Your task to perform on an android device: turn notification dots on Image 0: 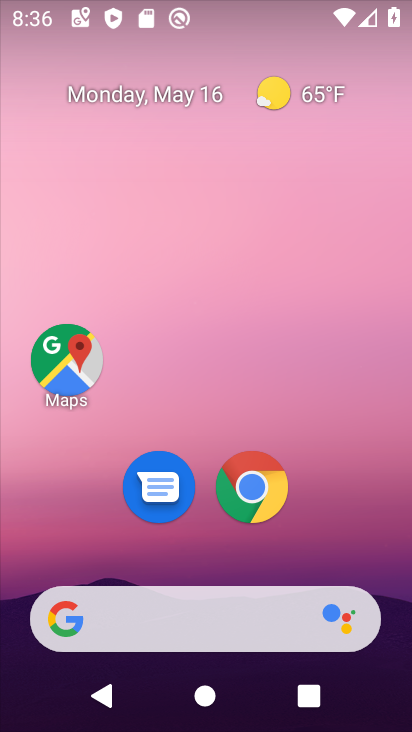
Step 0: drag from (356, 503) to (366, 176)
Your task to perform on an android device: turn notification dots on Image 1: 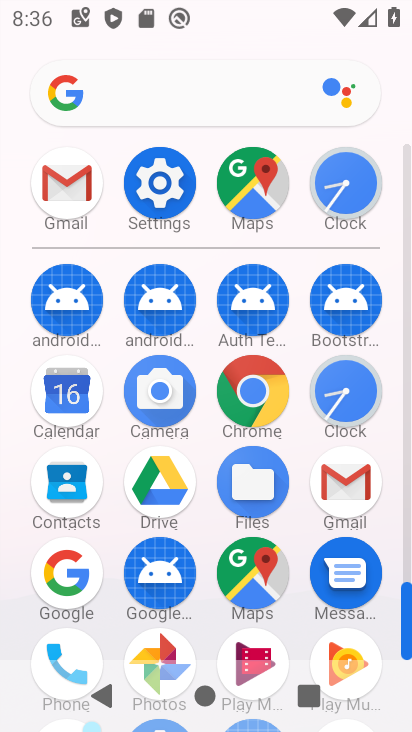
Step 1: click (188, 200)
Your task to perform on an android device: turn notification dots on Image 2: 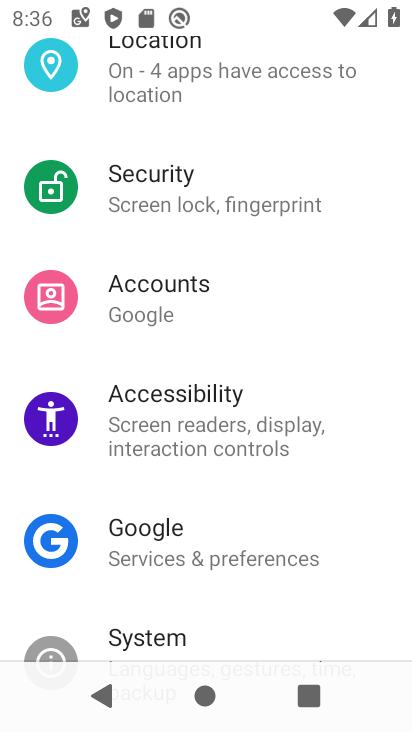
Step 2: drag from (344, 265) to (347, 496)
Your task to perform on an android device: turn notification dots on Image 3: 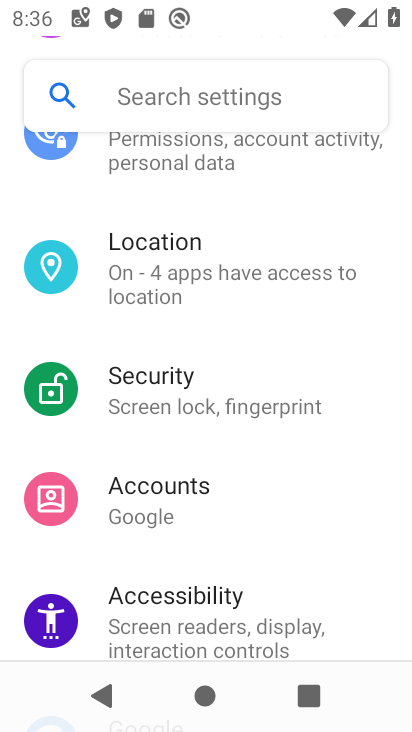
Step 3: drag from (375, 208) to (362, 422)
Your task to perform on an android device: turn notification dots on Image 4: 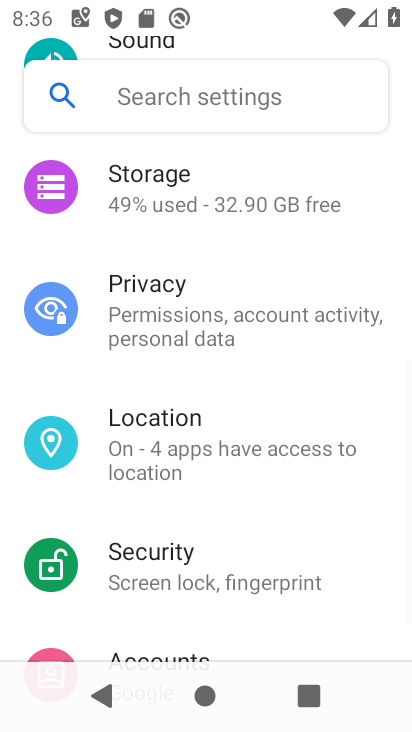
Step 4: drag from (359, 232) to (371, 390)
Your task to perform on an android device: turn notification dots on Image 5: 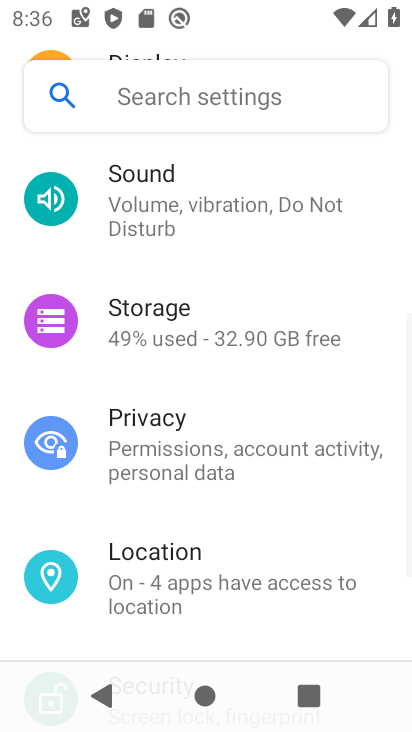
Step 5: drag from (368, 192) to (367, 392)
Your task to perform on an android device: turn notification dots on Image 6: 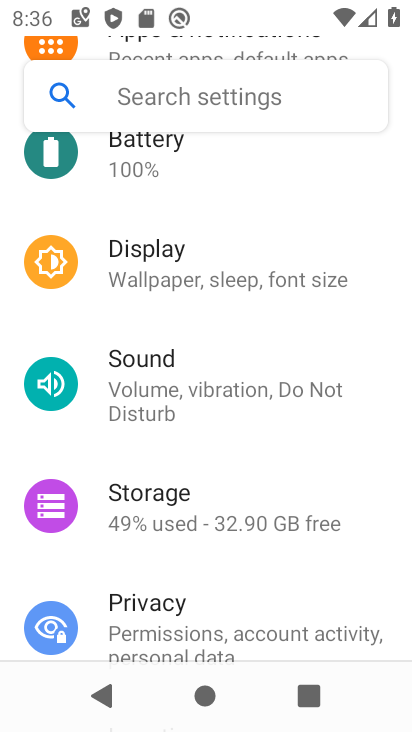
Step 6: drag from (359, 202) to (363, 407)
Your task to perform on an android device: turn notification dots on Image 7: 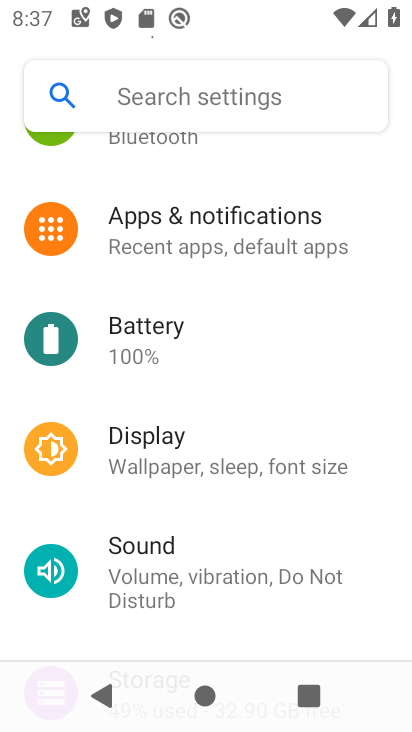
Step 7: drag from (364, 423) to (362, 307)
Your task to perform on an android device: turn notification dots on Image 8: 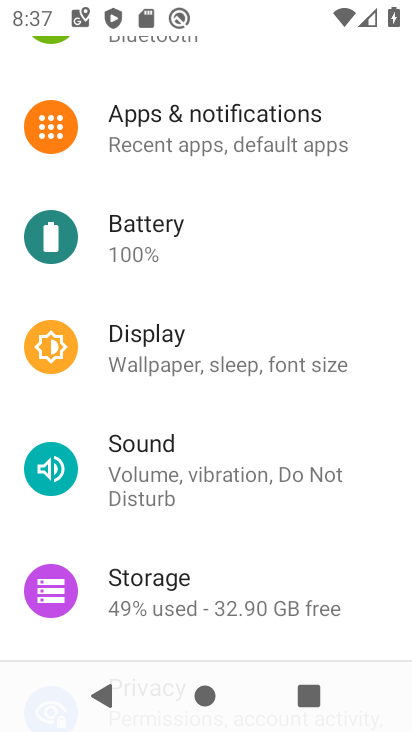
Step 8: drag from (336, 526) to (370, 328)
Your task to perform on an android device: turn notification dots on Image 9: 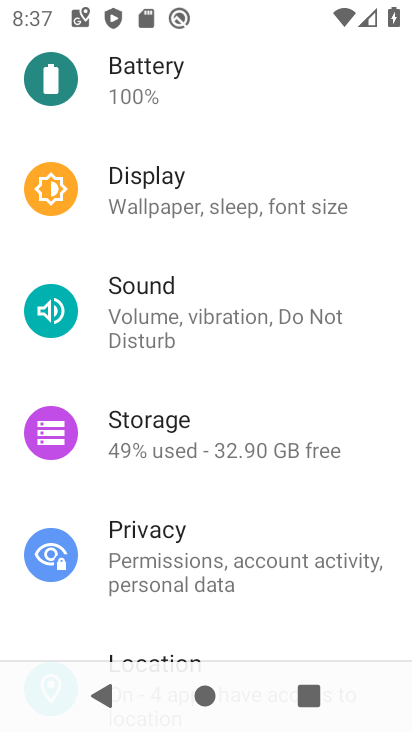
Step 9: drag from (350, 489) to (372, 327)
Your task to perform on an android device: turn notification dots on Image 10: 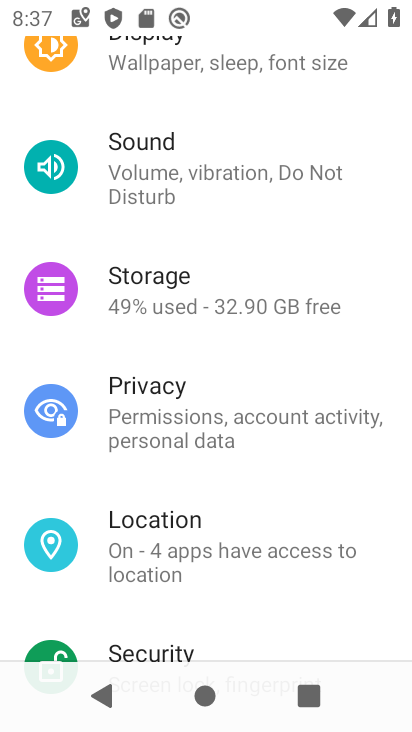
Step 10: drag from (308, 590) to (330, 350)
Your task to perform on an android device: turn notification dots on Image 11: 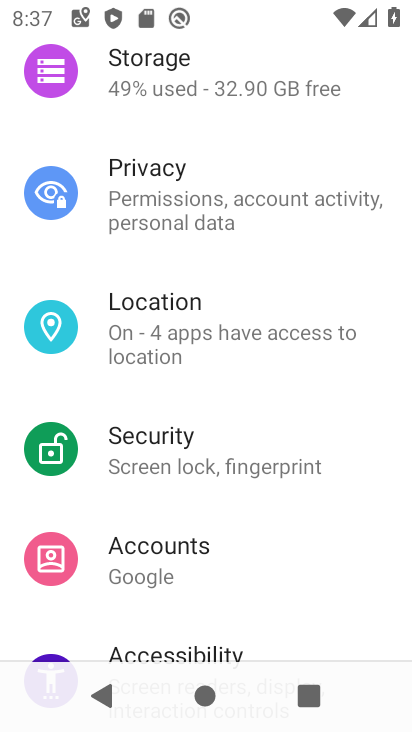
Step 11: drag from (306, 579) to (324, 420)
Your task to perform on an android device: turn notification dots on Image 12: 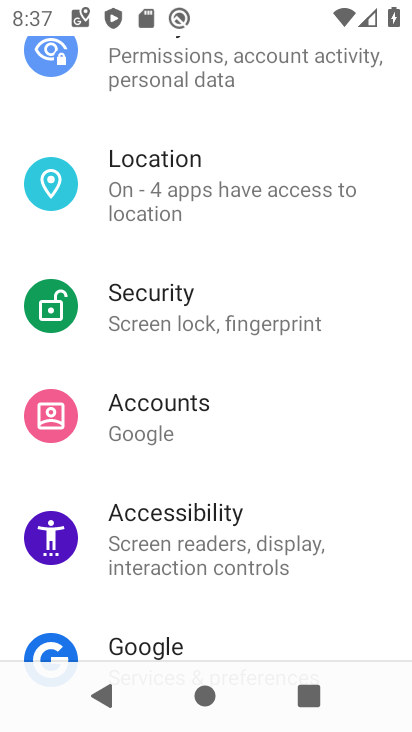
Step 12: drag from (315, 551) to (331, 453)
Your task to perform on an android device: turn notification dots on Image 13: 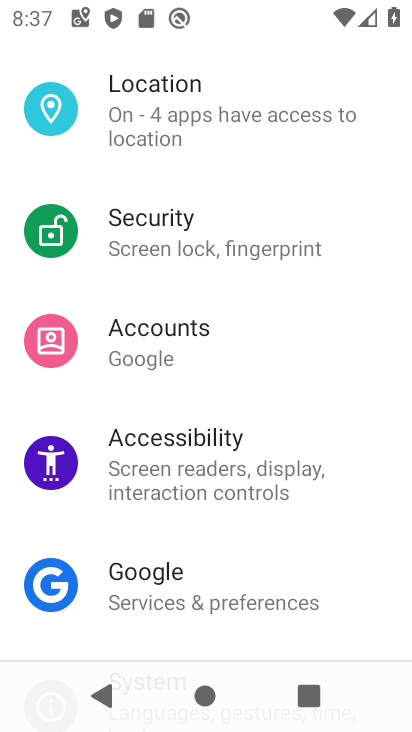
Step 13: drag from (322, 555) to (328, 371)
Your task to perform on an android device: turn notification dots on Image 14: 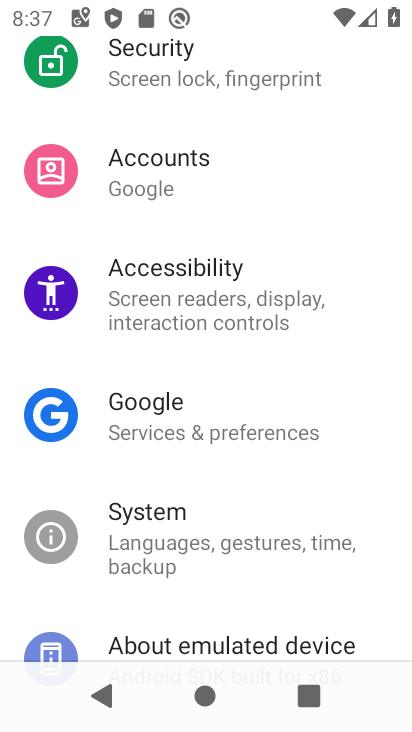
Step 14: drag from (308, 585) to (317, 414)
Your task to perform on an android device: turn notification dots on Image 15: 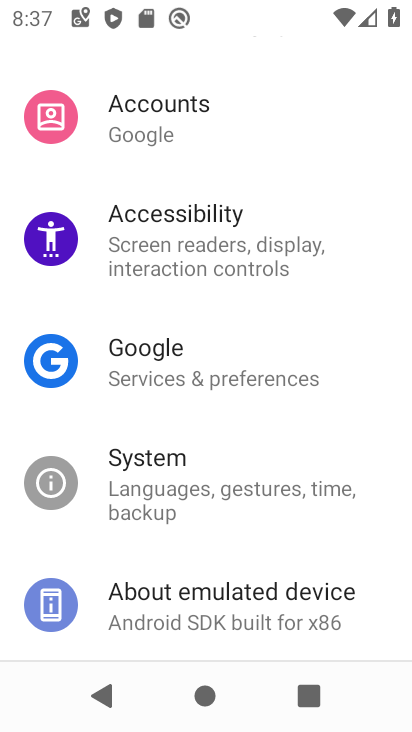
Step 15: drag from (355, 254) to (365, 465)
Your task to perform on an android device: turn notification dots on Image 16: 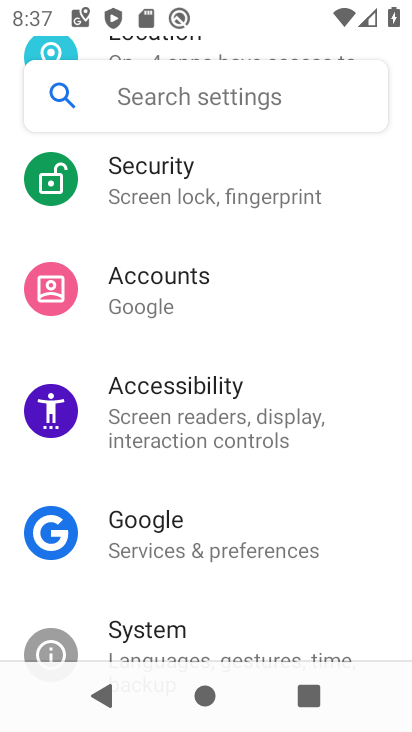
Step 16: drag from (365, 254) to (368, 467)
Your task to perform on an android device: turn notification dots on Image 17: 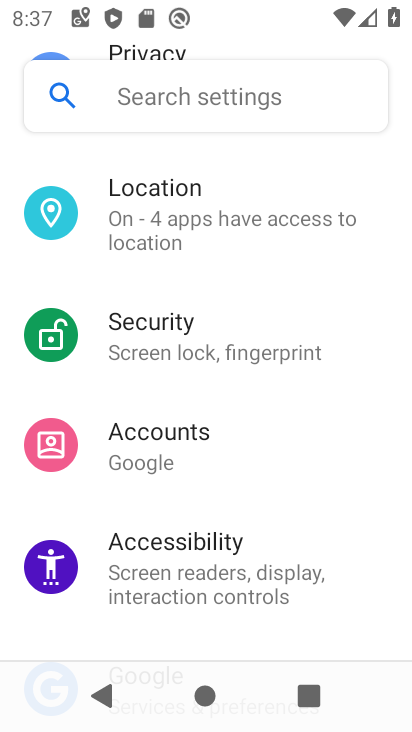
Step 17: drag from (354, 263) to (342, 469)
Your task to perform on an android device: turn notification dots on Image 18: 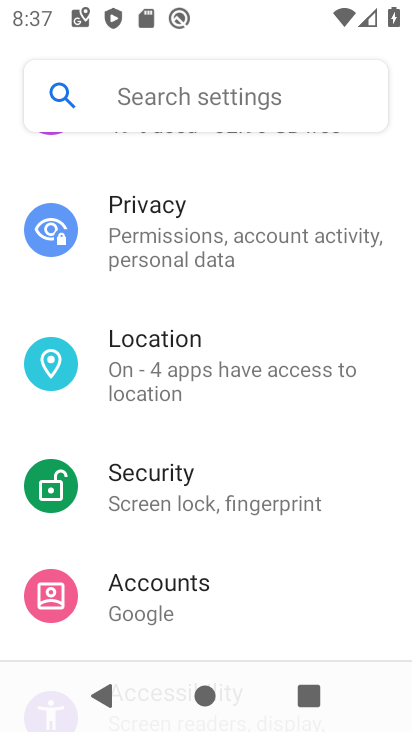
Step 18: drag from (344, 277) to (348, 459)
Your task to perform on an android device: turn notification dots on Image 19: 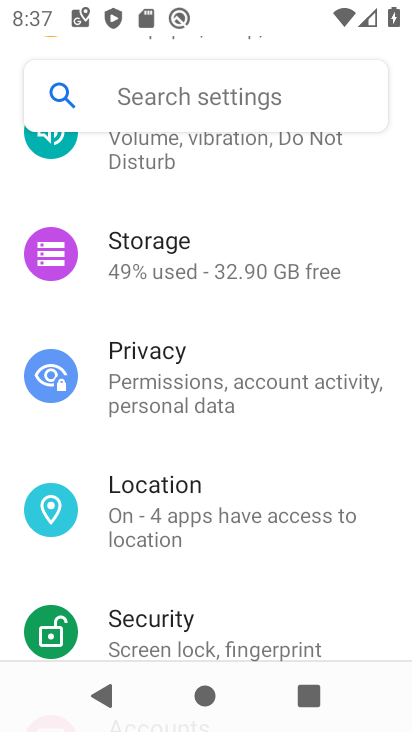
Step 19: drag from (357, 211) to (358, 421)
Your task to perform on an android device: turn notification dots on Image 20: 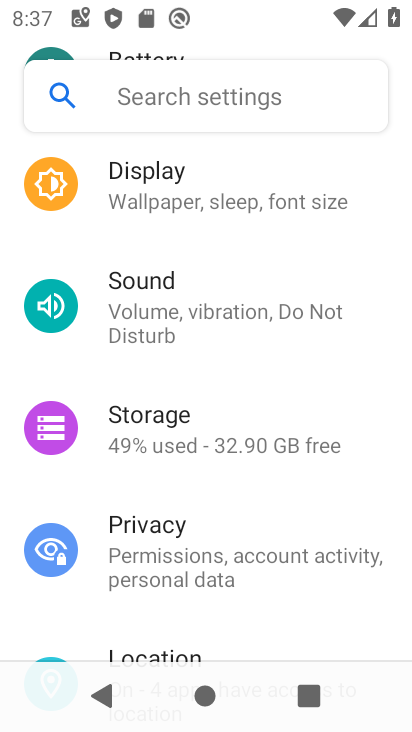
Step 20: drag from (355, 225) to (352, 405)
Your task to perform on an android device: turn notification dots on Image 21: 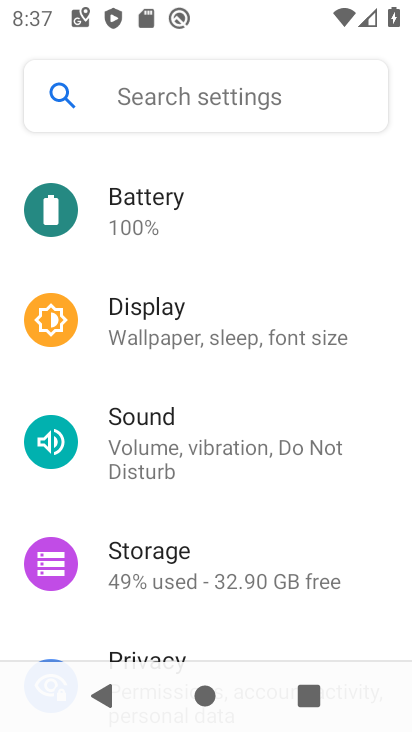
Step 21: drag from (333, 193) to (309, 386)
Your task to perform on an android device: turn notification dots on Image 22: 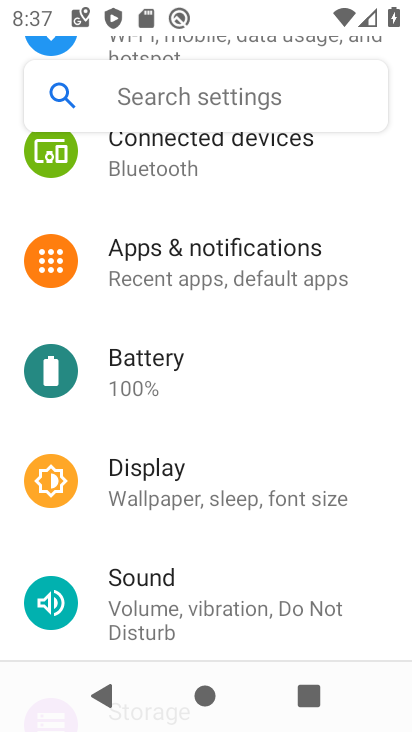
Step 22: drag from (363, 215) to (330, 425)
Your task to perform on an android device: turn notification dots on Image 23: 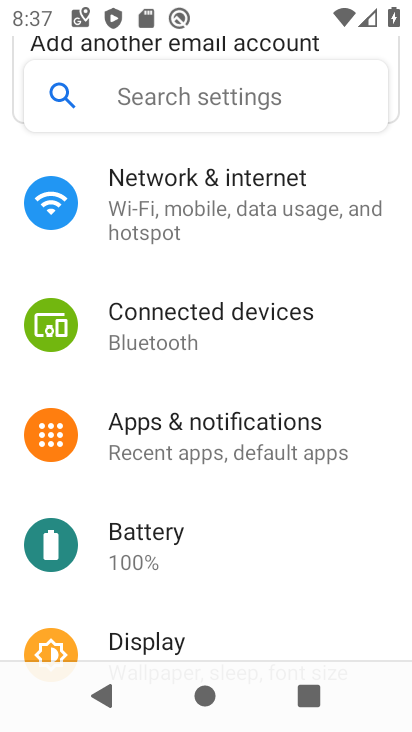
Step 23: click (294, 432)
Your task to perform on an android device: turn notification dots on Image 24: 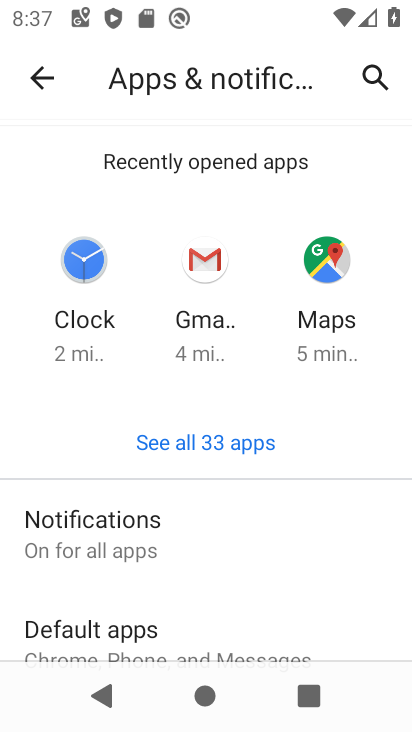
Step 24: click (103, 548)
Your task to perform on an android device: turn notification dots on Image 25: 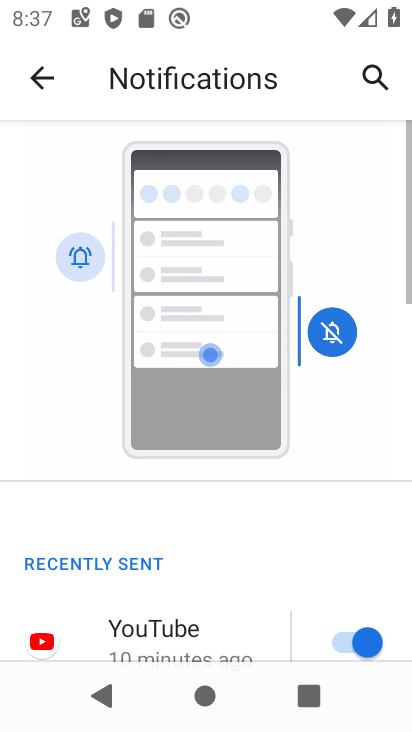
Step 25: drag from (258, 570) to (266, 377)
Your task to perform on an android device: turn notification dots on Image 26: 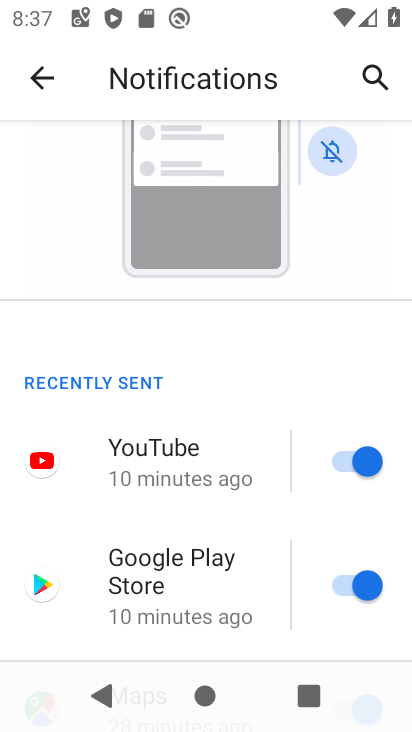
Step 26: drag from (252, 572) to (264, 410)
Your task to perform on an android device: turn notification dots on Image 27: 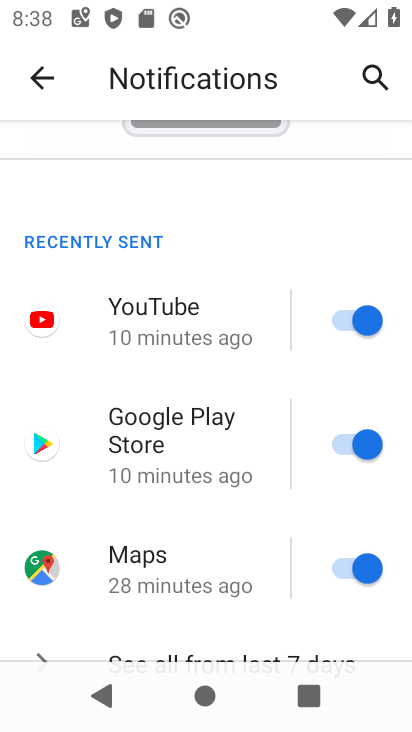
Step 27: drag from (247, 621) to (268, 420)
Your task to perform on an android device: turn notification dots on Image 28: 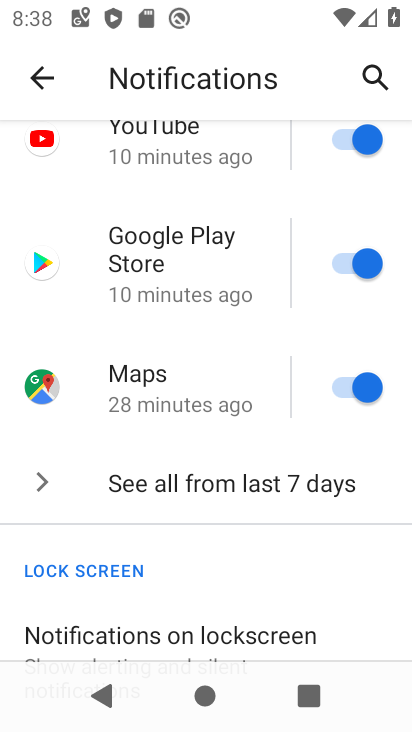
Step 28: drag from (223, 589) to (226, 444)
Your task to perform on an android device: turn notification dots on Image 29: 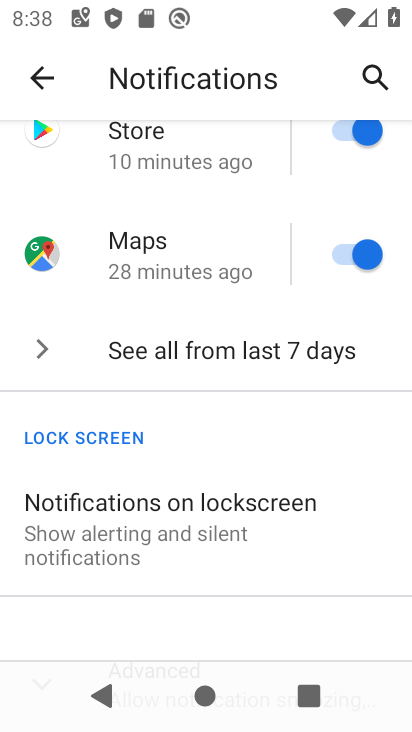
Step 29: drag from (205, 608) to (220, 421)
Your task to perform on an android device: turn notification dots on Image 30: 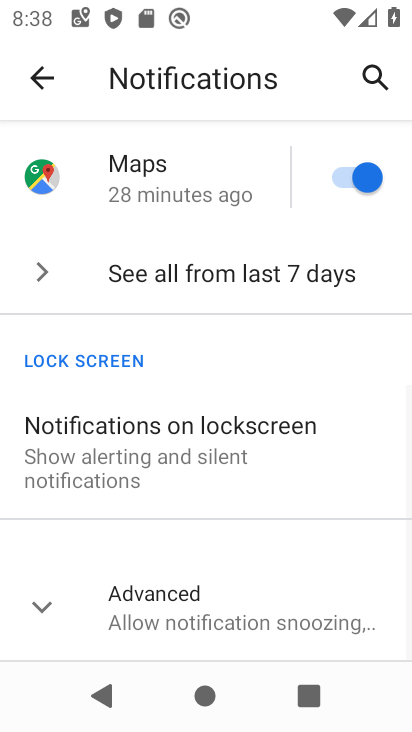
Step 30: click (176, 593)
Your task to perform on an android device: turn notification dots on Image 31: 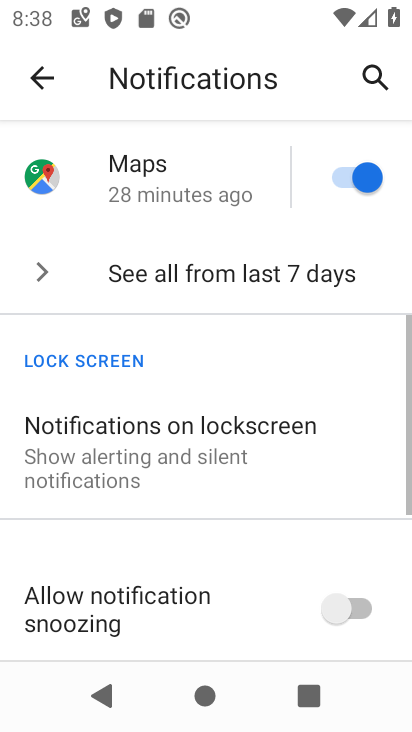
Step 31: task complete